Your task to perform on an android device: Open the map Image 0: 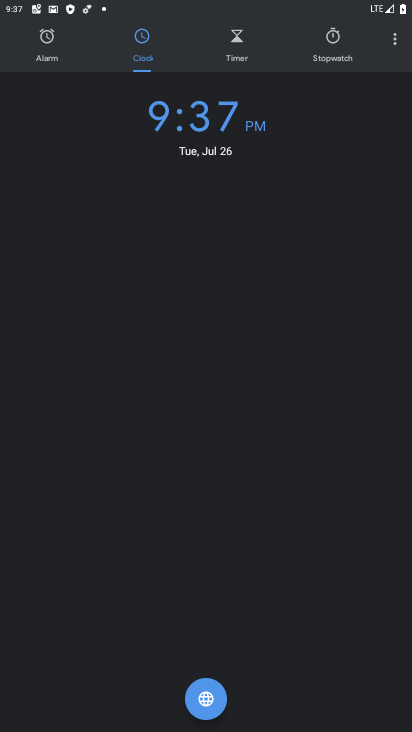
Step 0: press home button
Your task to perform on an android device: Open the map Image 1: 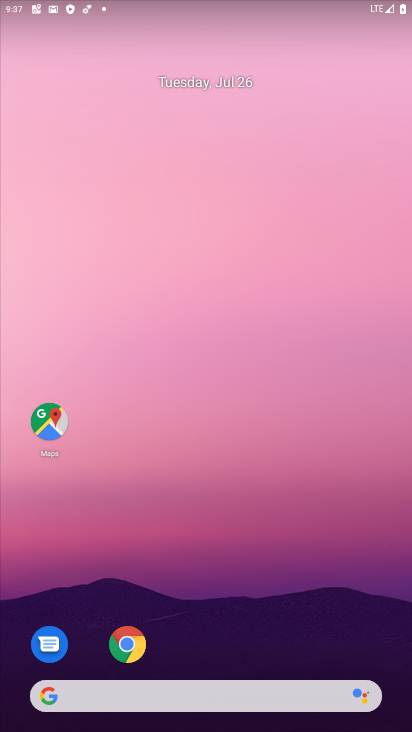
Step 1: click (53, 418)
Your task to perform on an android device: Open the map Image 2: 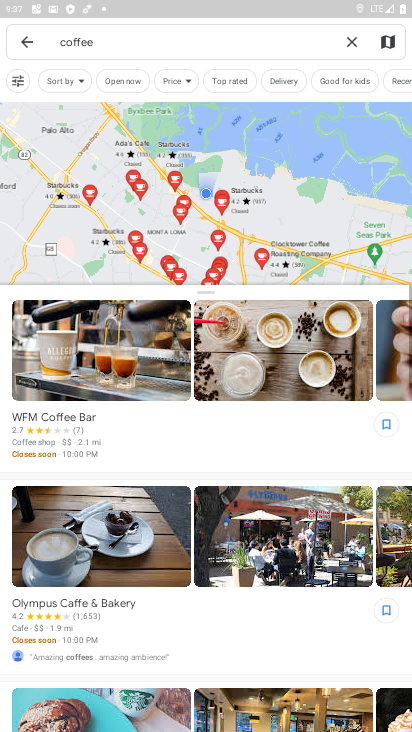
Step 2: task complete